Your task to perform on an android device: toggle location history Image 0: 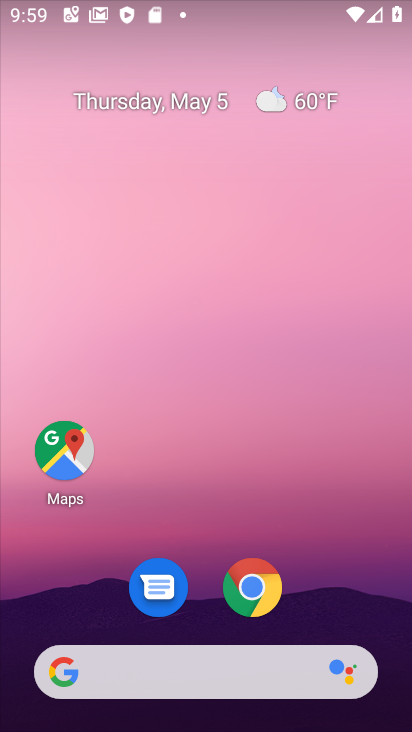
Step 0: drag from (82, 642) to (256, 89)
Your task to perform on an android device: toggle location history Image 1: 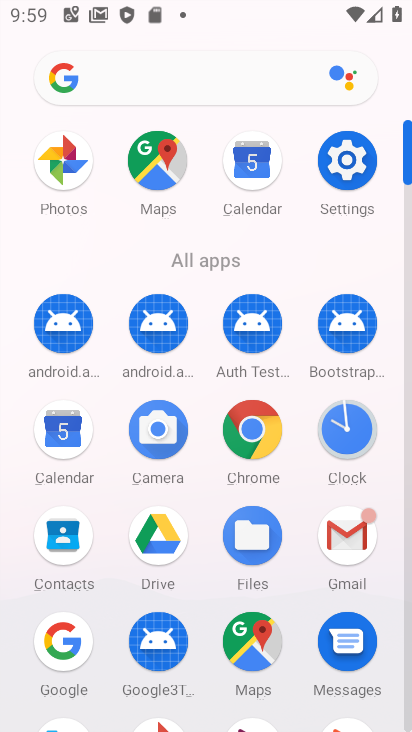
Step 1: click (341, 166)
Your task to perform on an android device: toggle location history Image 2: 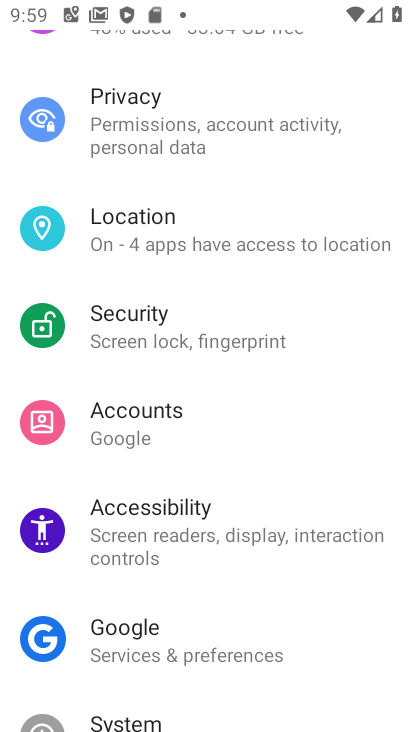
Step 2: click (199, 205)
Your task to perform on an android device: toggle location history Image 3: 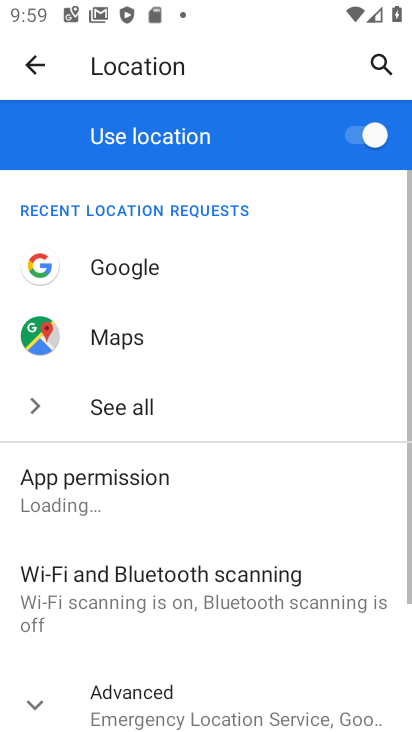
Step 3: drag from (162, 631) to (248, 413)
Your task to perform on an android device: toggle location history Image 4: 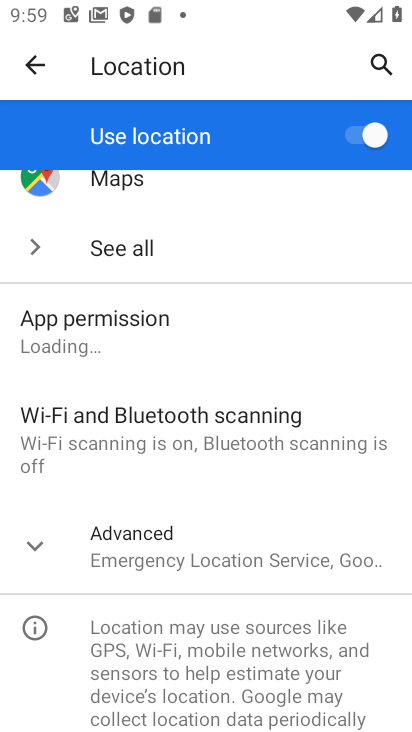
Step 4: click (191, 569)
Your task to perform on an android device: toggle location history Image 5: 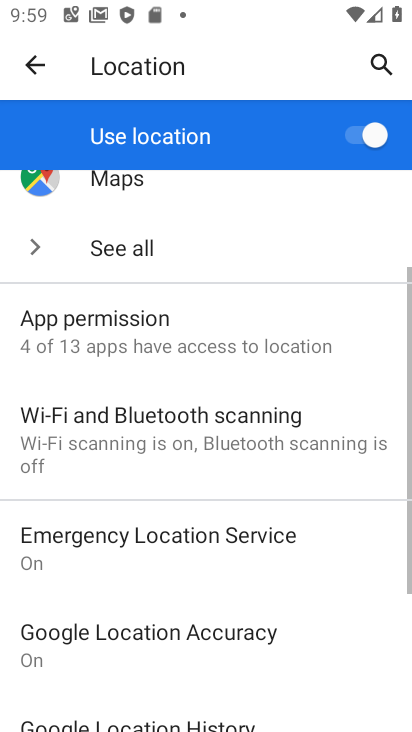
Step 5: drag from (196, 677) to (290, 423)
Your task to perform on an android device: toggle location history Image 6: 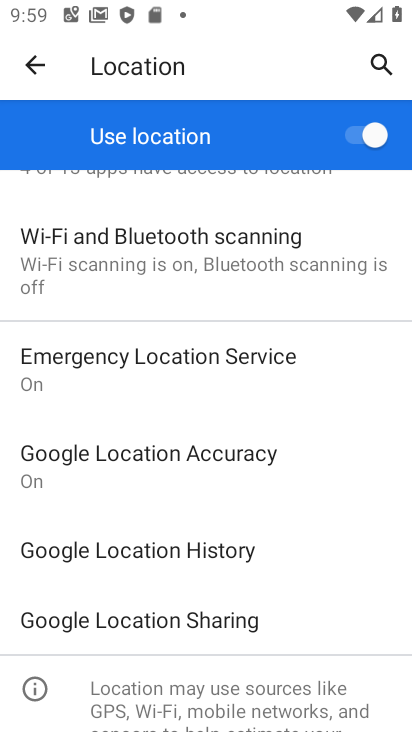
Step 6: click (192, 559)
Your task to perform on an android device: toggle location history Image 7: 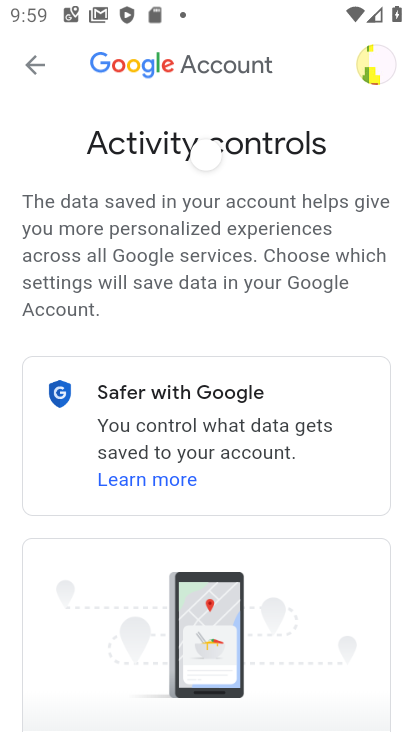
Step 7: drag from (148, 686) to (292, 210)
Your task to perform on an android device: toggle location history Image 8: 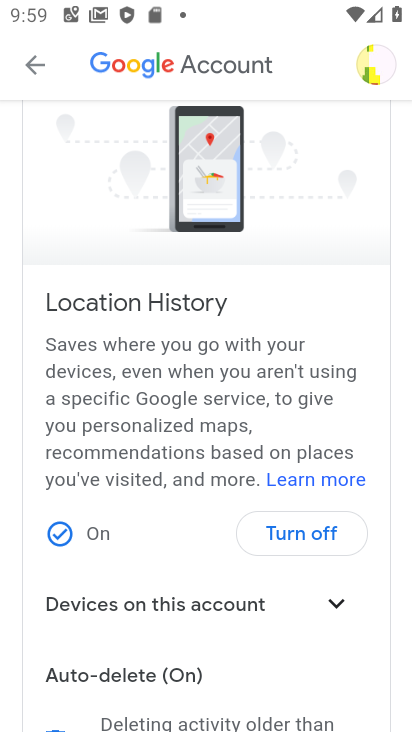
Step 8: drag from (191, 592) to (277, 266)
Your task to perform on an android device: toggle location history Image 9: 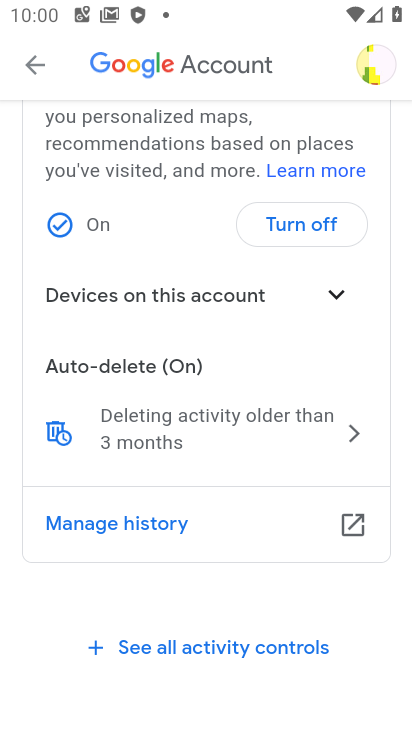
Step 9: click (304, 234)
Your task to perform on an android device: toggle location history Image 10: 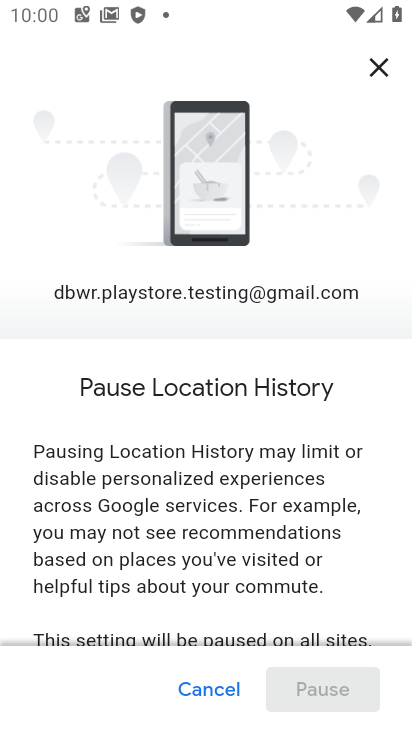
Step 10: drag from (248, 628) to (372, 81)
Your task to perform on an android device: toggle location history Image 11: 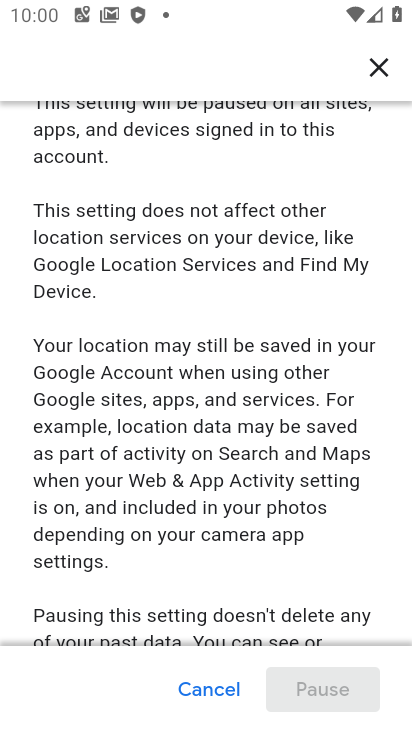
Step 11: drag from (290, 569) to (399, 198)
Your task to perform on an android device: toggle location history Image 12: 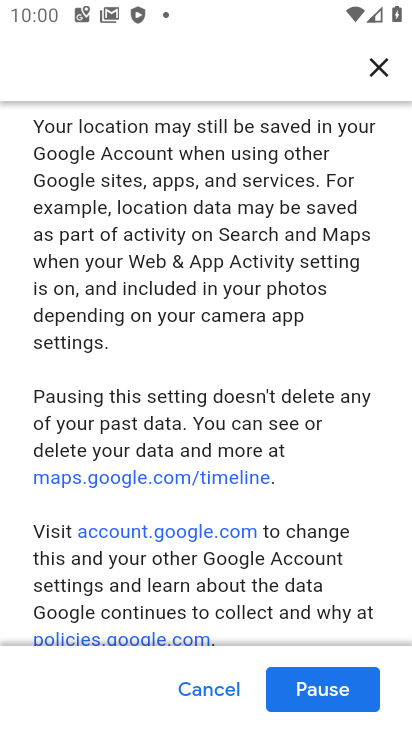
Step 12: click (370, 689)
Your task to perform on an android device: toggle location history Image 13: 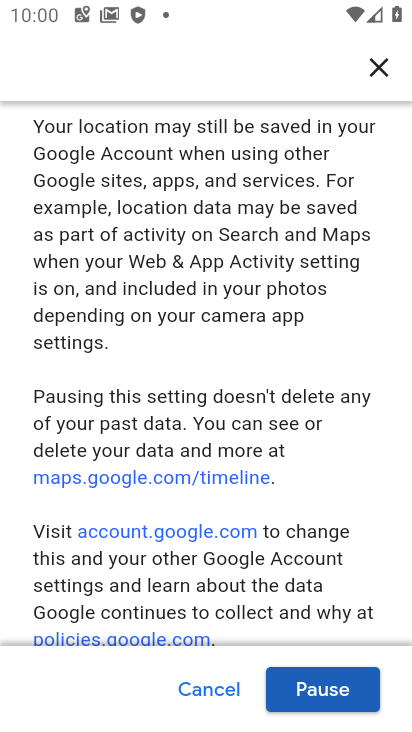
Step 13: click (344, 703)
Your task to perform on an android device: toggle location history Image 14: 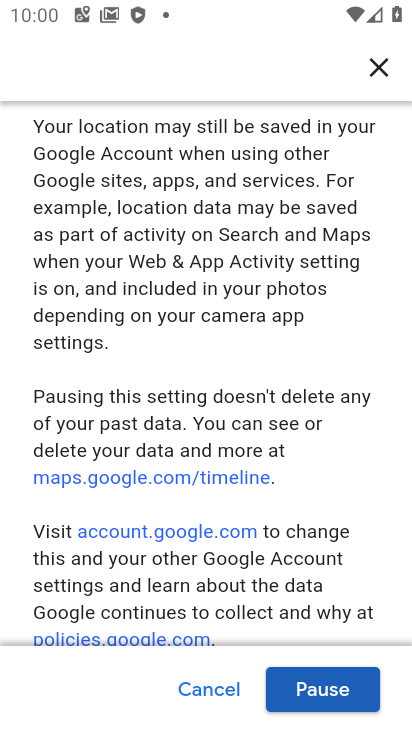
Step 14: click (329, 701)
Your task to perform on an android device: toggle location history Image 15: 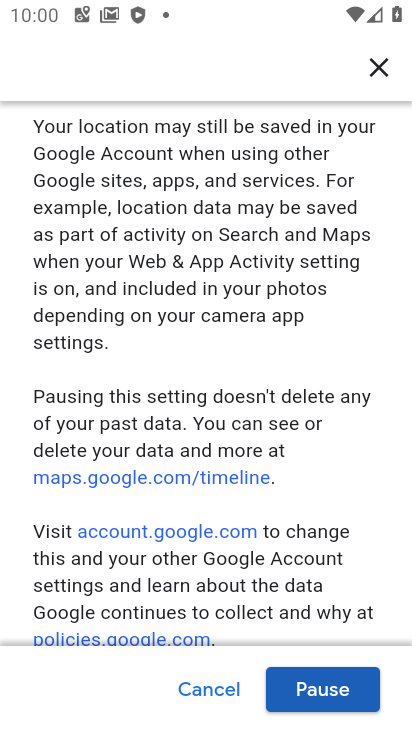
Step 15: click (334, 685)
Your task to perform on an android device: toggle location history Image 16: 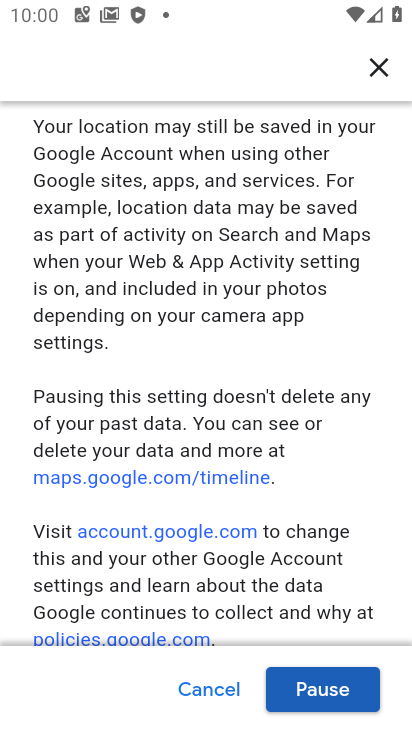
Step 16: drag from (191, 608) to (313, 231)
Your task to perform on an android device: toggle location history Image 17: 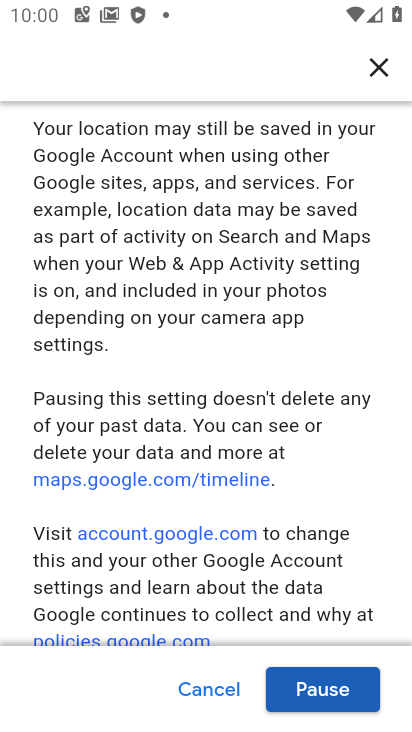
Step 17: click (346, 712)
Your task to perform on an android device: toggle location history Image 18: 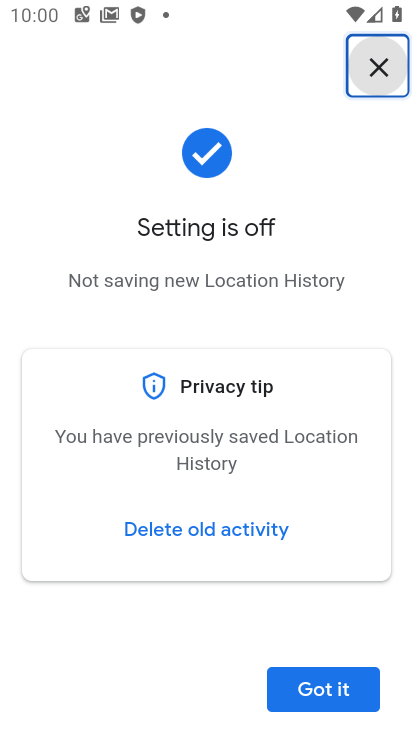
Step 18: click (315, 692)
Your task to perform on an android device: toggle location history Image 19: 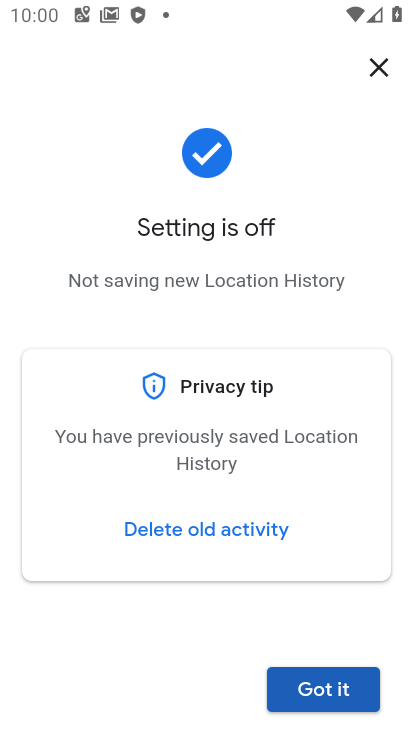
Step 19: click (323, 690)
Your task to perform on an android device: toggle location history Image 20: 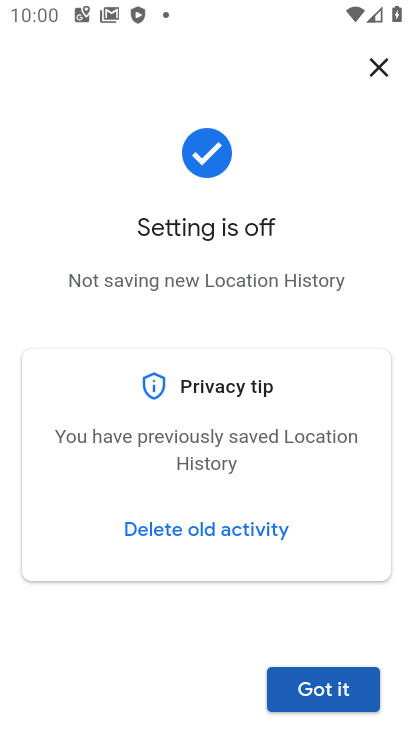
Step 20: click (353, 689)
Your task to perform on an android device: toggle location history Image 21: 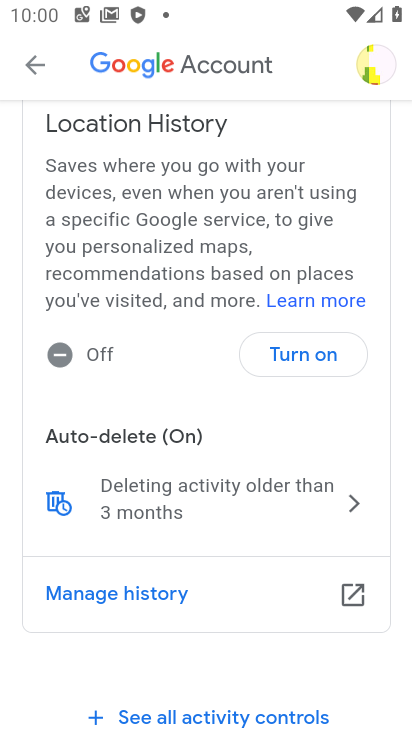
Step 21: task complete